Your task to perform on an android device: Do I have any events today? Image 0: 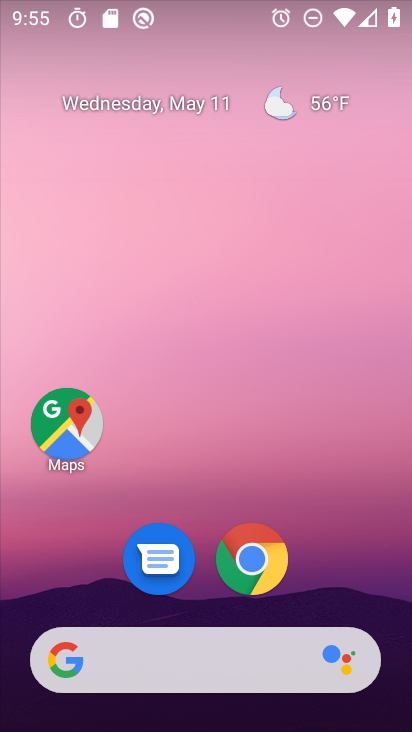
Step 0: drag from (343, 508) to (371, 129)
Your task to perform on an android device: Do I have any events today? Image 1: 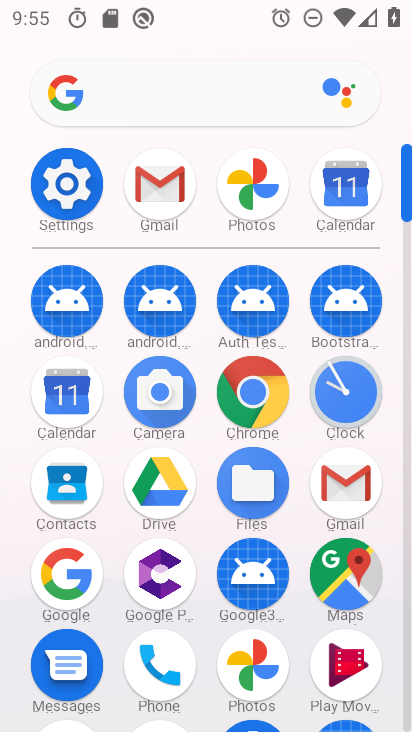
Step 1: click (357, 183)
Your task to perform on an android device: Do I have any events today? Image 2: 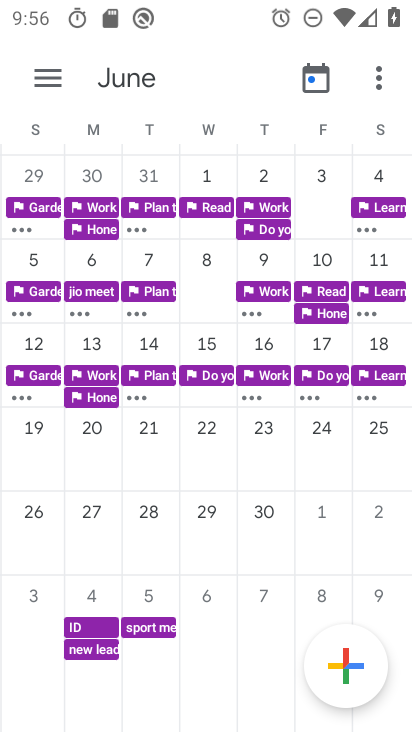
Step 2: click (27, 77)
Your task to perform on an android device: Do I have any events today? Image 3: 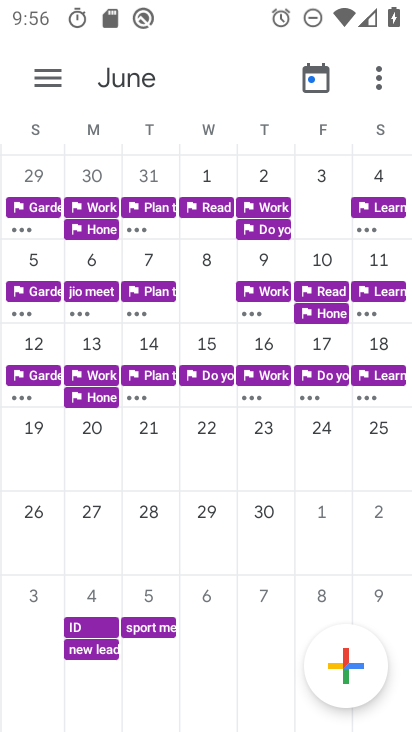
Step 3: click (49, 84)
Your task to perform on an android device: Do I have any events today? Image 4: 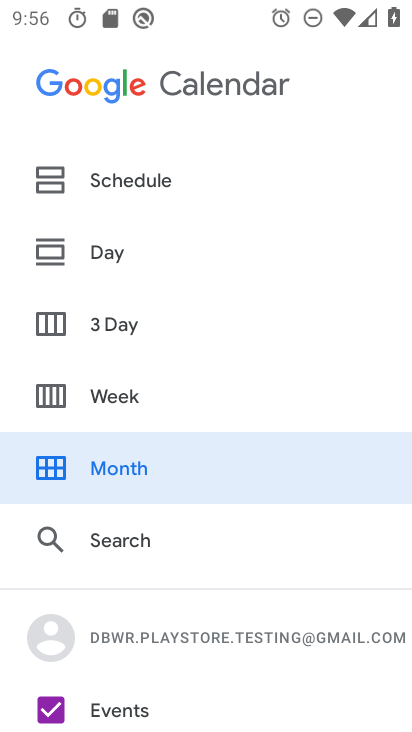
Step 4: click (148, 691)
Your task to perform on an android device: Do I have any events today? Image 5: 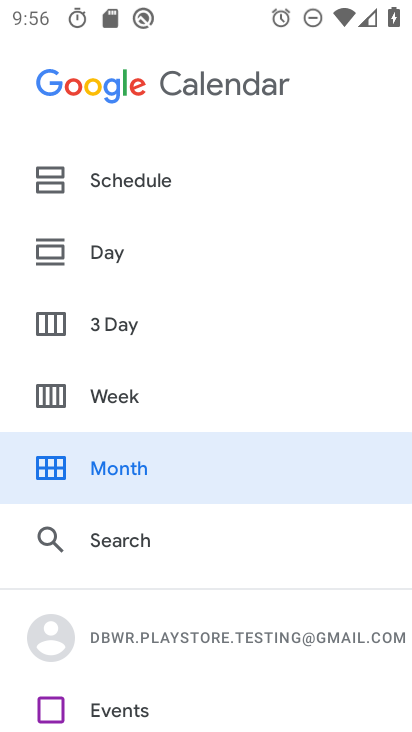
Step 5: click (124, 714)
Your task to perform on an android device: Do I have any events today? Image 6: 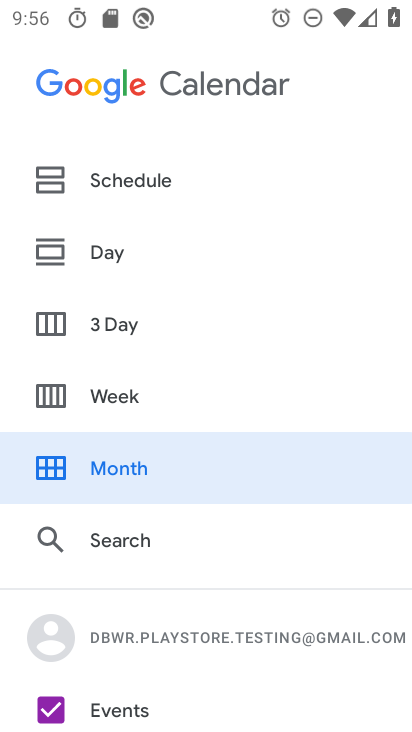
Step 6: click (136, 468)
Your task to perform on an android device: Do I have any events today? Image 7: 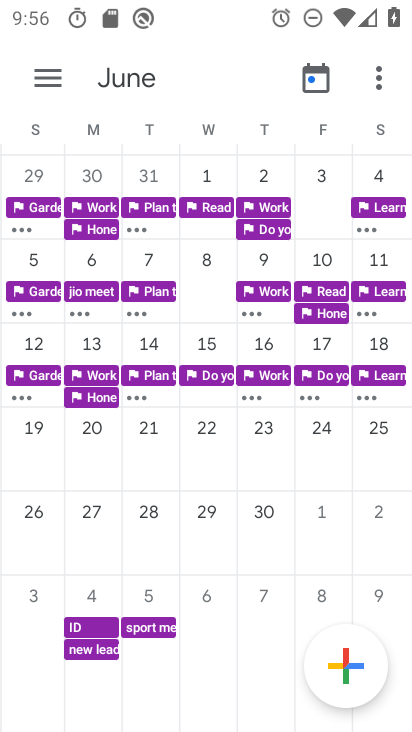
Step 7: drag from (158, 240) to (75, 693)
Your task to perform on an android device: Do I have any events today? Image 8: 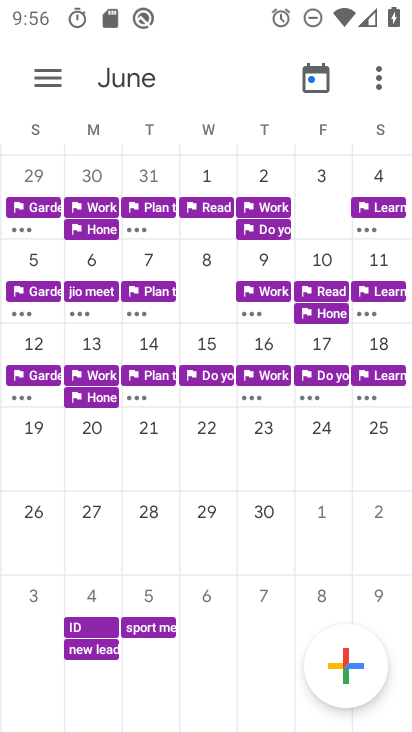
Step 8: drag from (135, 338) to (359, 322)
Your task to perform on an android device: Do I have any events today? Image 9: 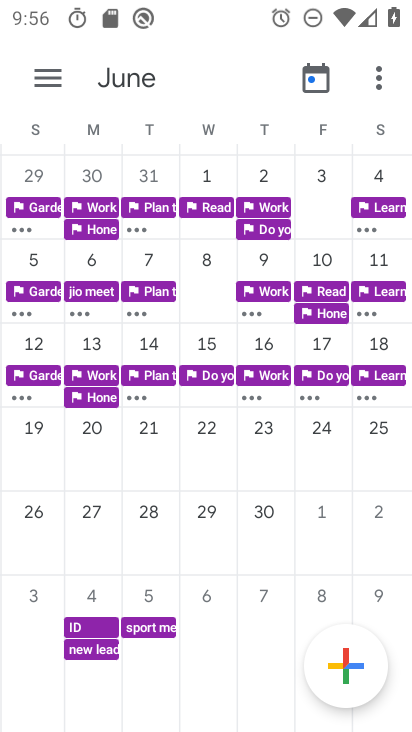
Step 9: drag from (274, 352) to (16, 361)
Your task to perform on an android device: Do I have any events today? Image 10: 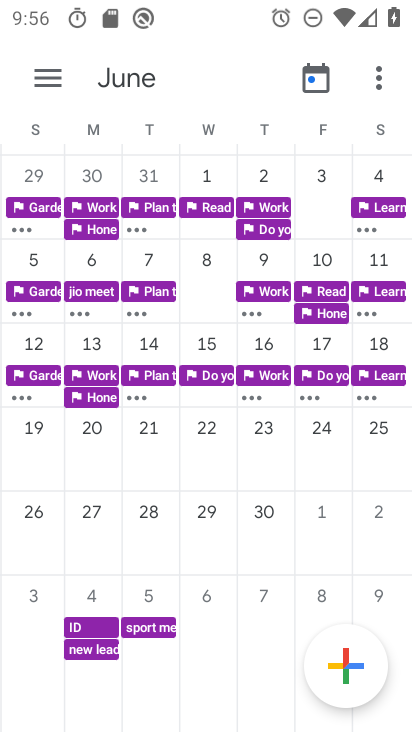
Step 10: drag from (40, 292) to (389, 337)
Your task to perform on an android device: Do I have any events today? Image 11: 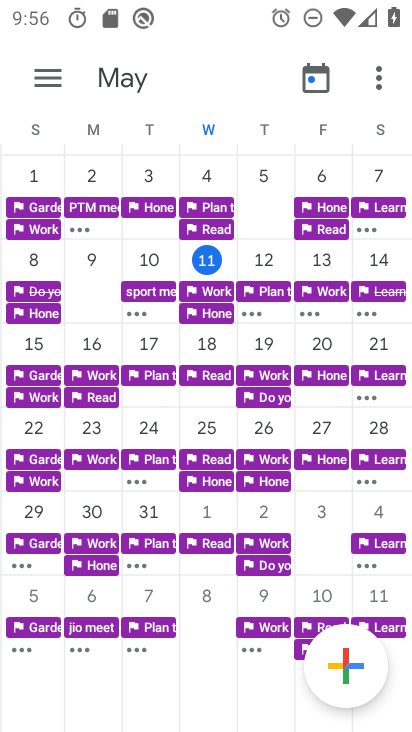
Step 11: click (257, 281)
Your task to perform on an android device: Do I have any events today? Image 12: 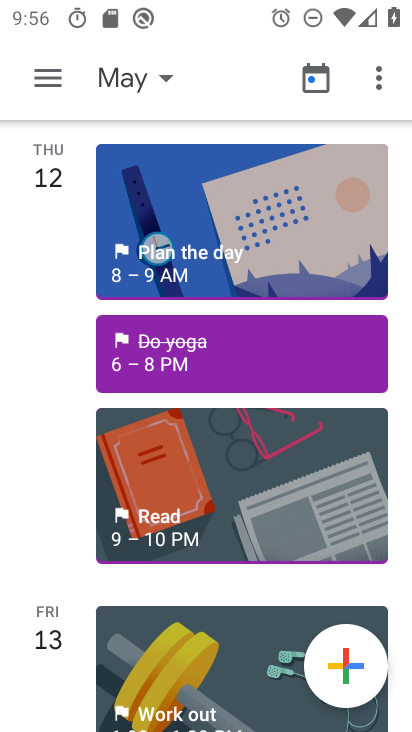
Step 12: click (126, 59)
Your task to perform on an android device: Do I have any events today? Image 13: 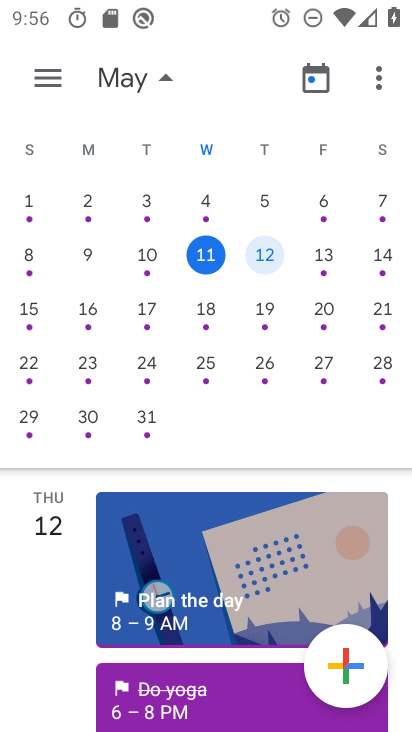
Step 13: click (158, 73)
Your task to perform on an android device: Do I have any events today? Image 14: 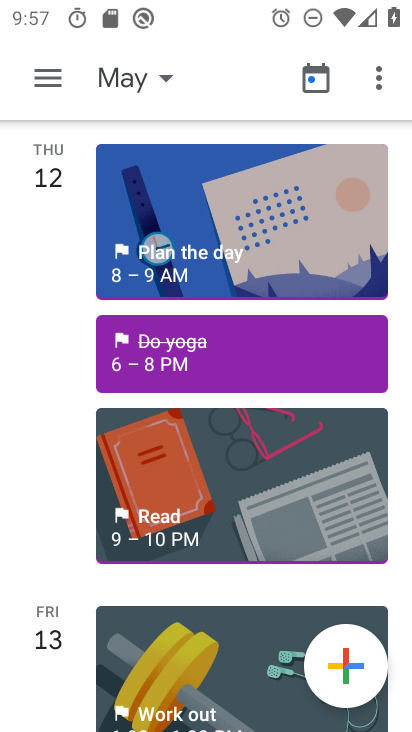
Step 14: task complete